Your task to perform on an android device: visit the assistant section in the google photos Image 0: 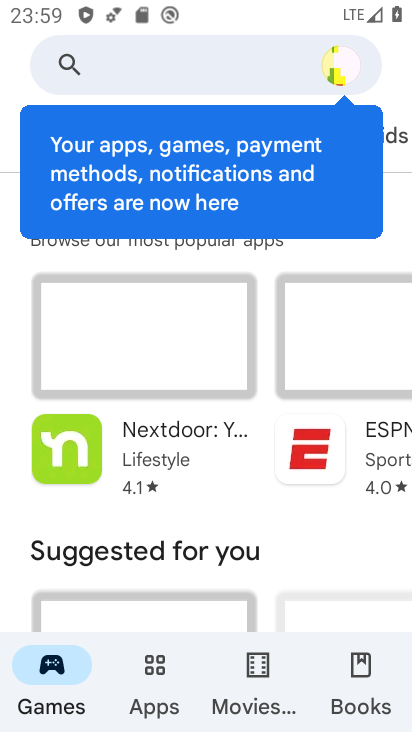
Step 0: press home button
Your task to perform on an android device: visit the assistant section in the google photos Image 1: 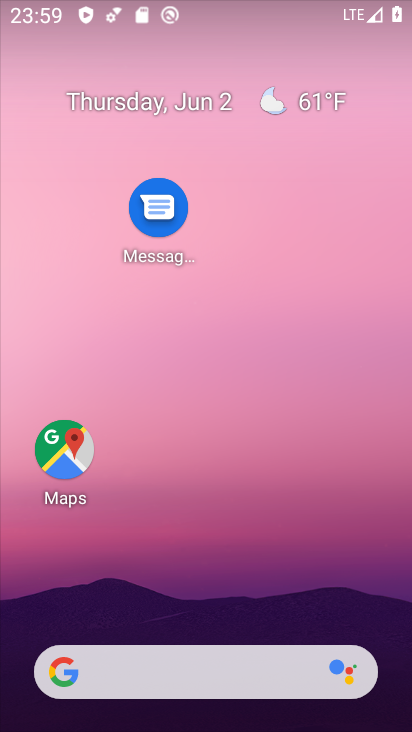
Step 1: drag from (190, 633) to (213, 39)
Your task to perform on an android device: visit the assistant section in the google photos Image 2: 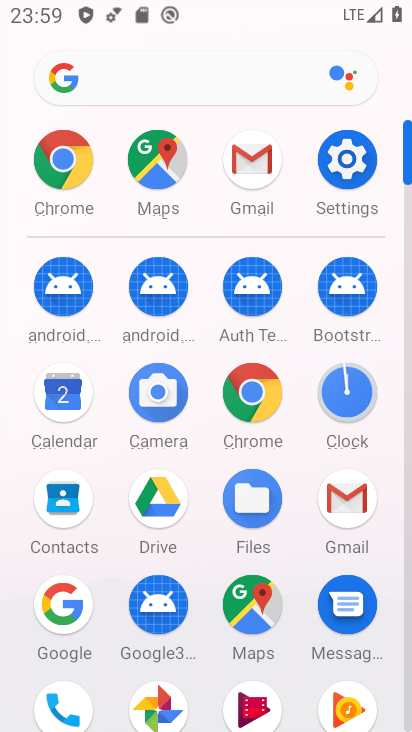
Step 2: click (157, 699)
Your task to perform on an android device: visit the assistant section in the google photos Image 3: 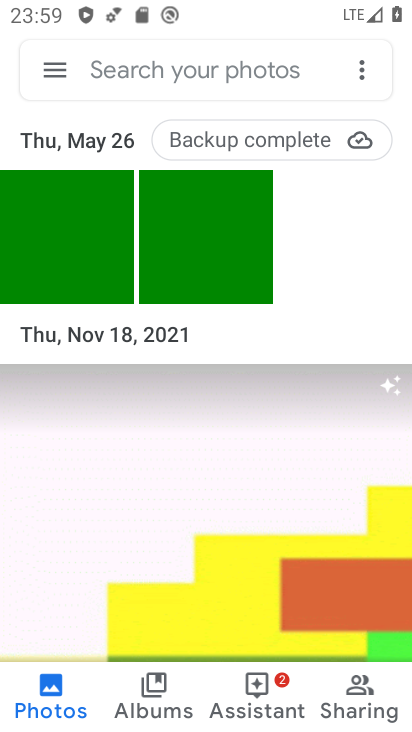
Step 3: click (265, 708)
Your task to perform on an android device: visit the assistant section in the google photos Image 4: 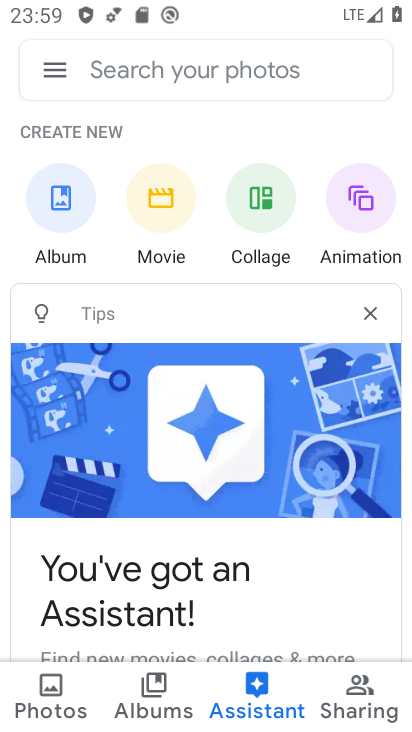
Step 4: task complete